Your task to perform on an android device: Open calendar and show me the first week of next month Image 0: 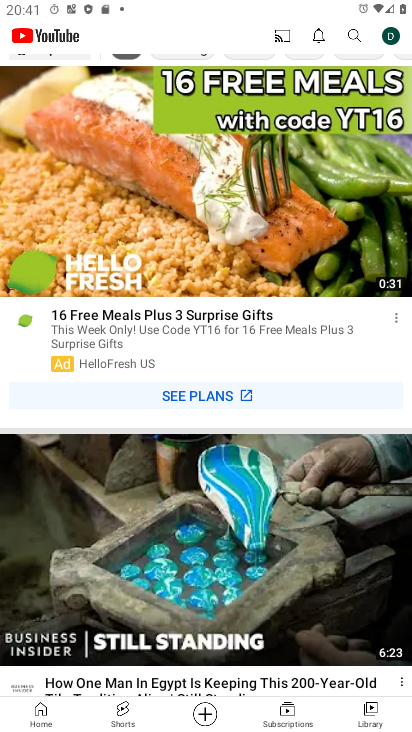
Step 0: press home button
Your task to perform on an android device: Open calendar and show me the first week of next month Image 1: 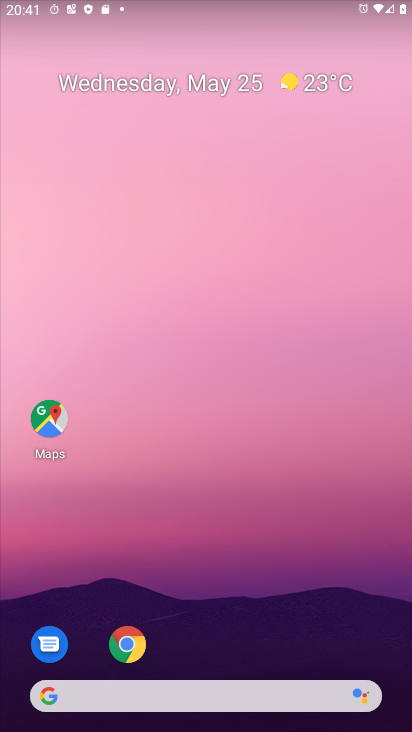
Step 1: drag from (191, 694) to (203, 84)
Your task to perform on an android device: Open calendar and show me the first week of next month Image 2: 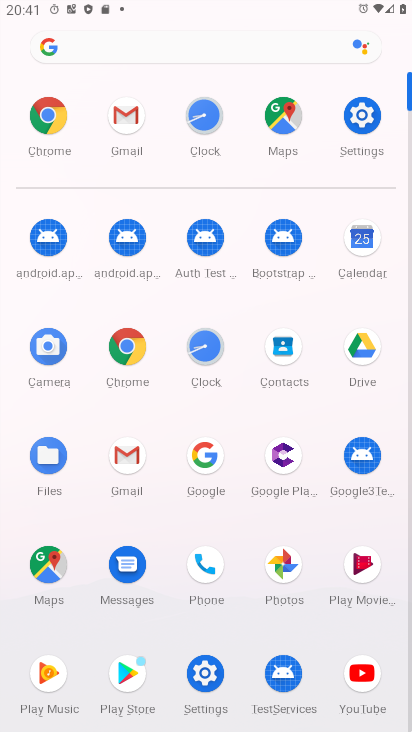
Step 2: click (370, 238)
Your task to perform on an android device: Open calendar and show me the first week of next month Image 3: 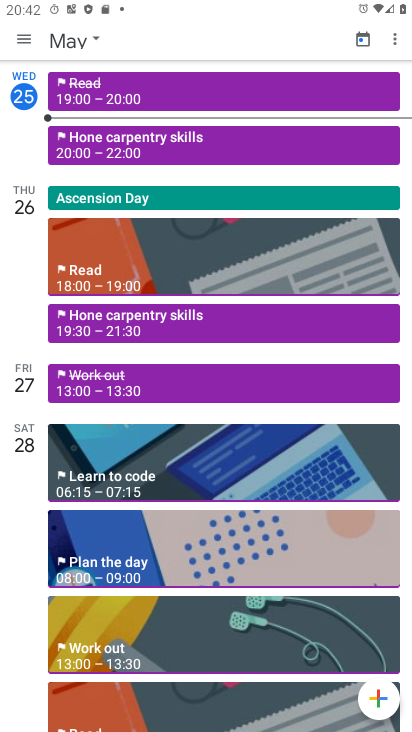
Step 3: click (13, 55)
Your task to perform on an android device: Open calendar and show me the first week of next month Image 4: 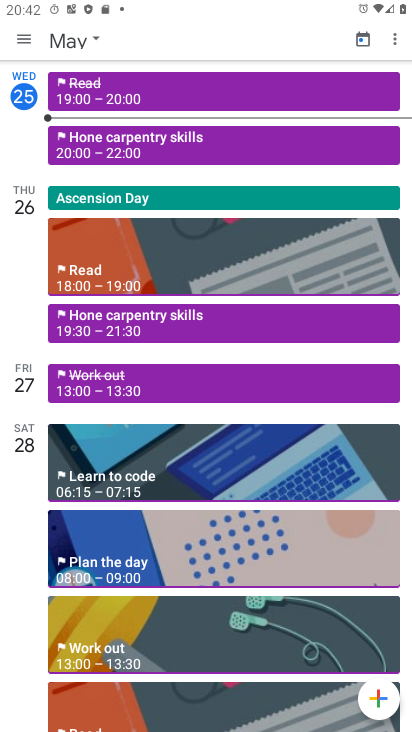
Step 4: click (36, 40)
Your task to perform on an android device: Open calendar and show me the first week of next month Image 5: 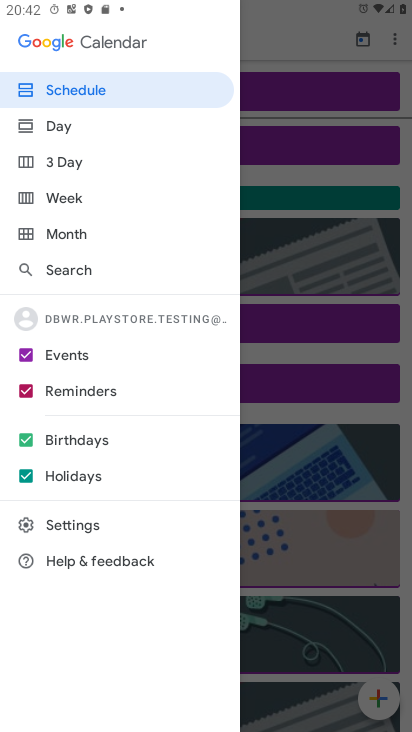
Step 5: click (75, 231)
Your task to perform on an android device: Open calendar and show me the first week of next month Image 6: 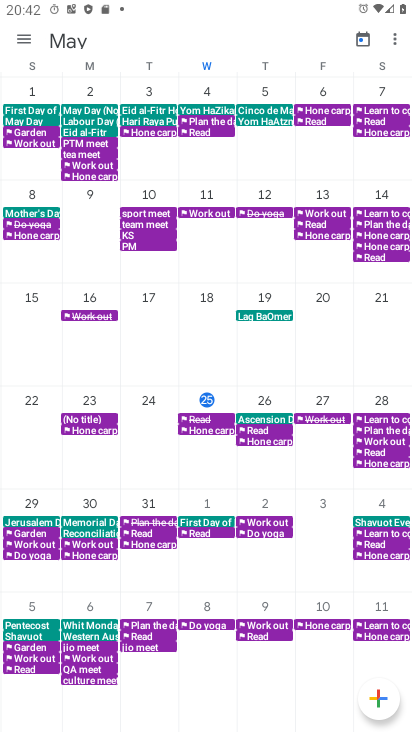
Step 6: drag from (350, 326) to (7, 274)
Your task to perform on an android device: Open calendar and show me the first week of next month Image 7: 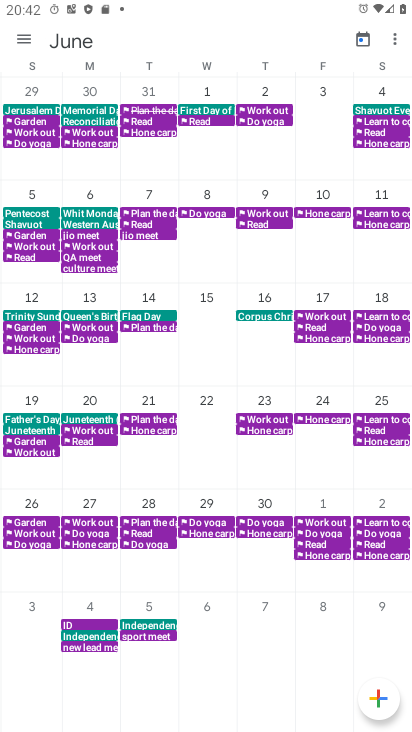
Step 7: click (197, 96)
Your task to perform on an android device: Open calendar and show me the first week of next month Image 8: 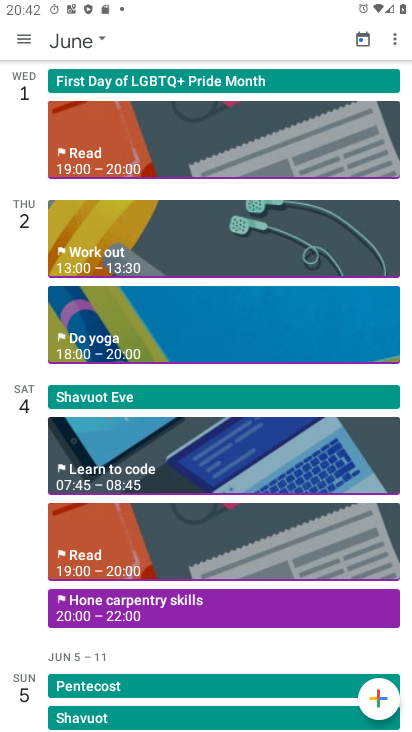
Step 8: task complete